Your task to perform on an android device: turn off sleep mode Image 0: 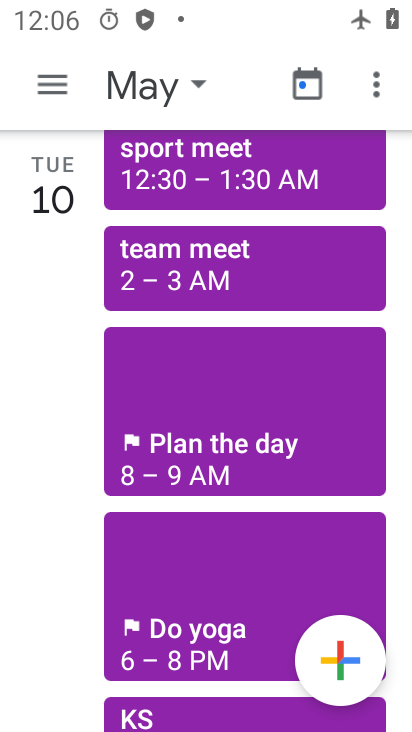
Step 0: press home button
Your task to perform on an android device: turn off sleep mode Image 1: 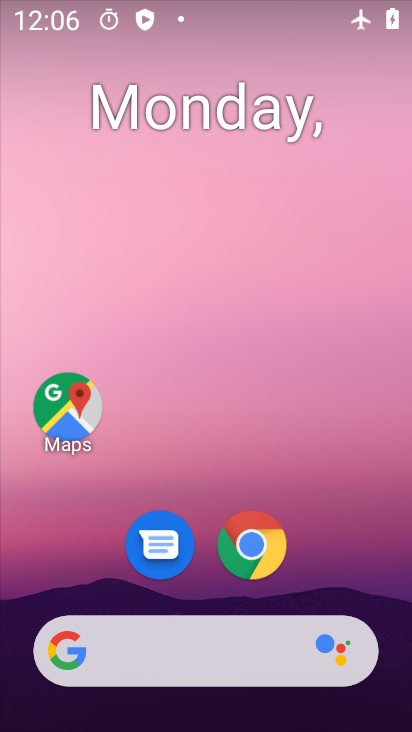
Step 1: drag from (208, 604) to (222, 264)
Your task to perform on an android device: turn off sleep mode Image 2: 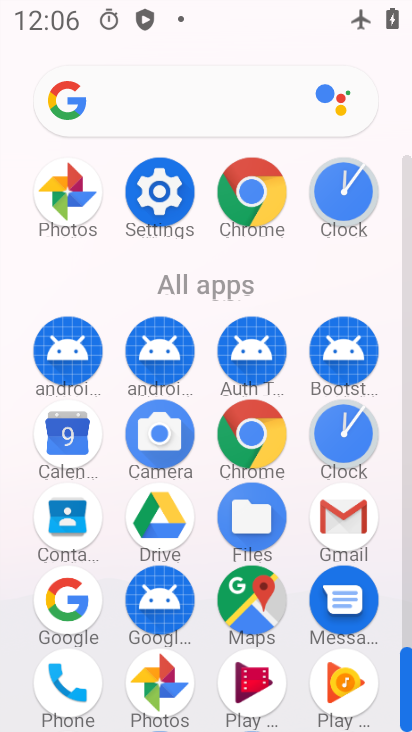
Step 2: click (157, 193)
Your task to perform on an android device: turn off sleep mode Image 3: 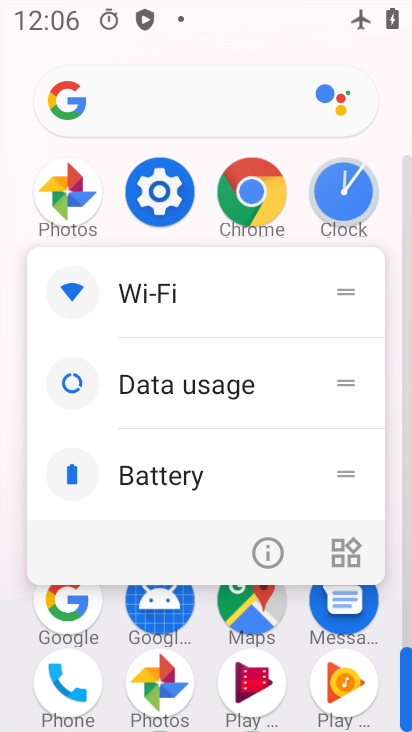
Step 3: click (275, 536)
Your task to perform on an android device: turn off sleep mode Image 4: 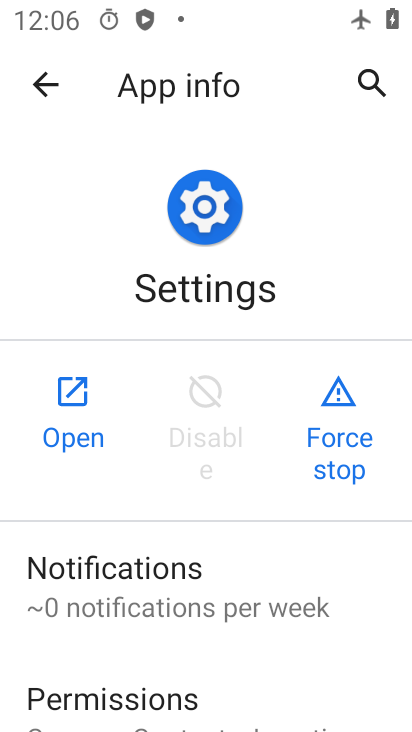
Step 4: click (74, 414)
Your task to perform on an android device: turn off sleep mode Image 5: 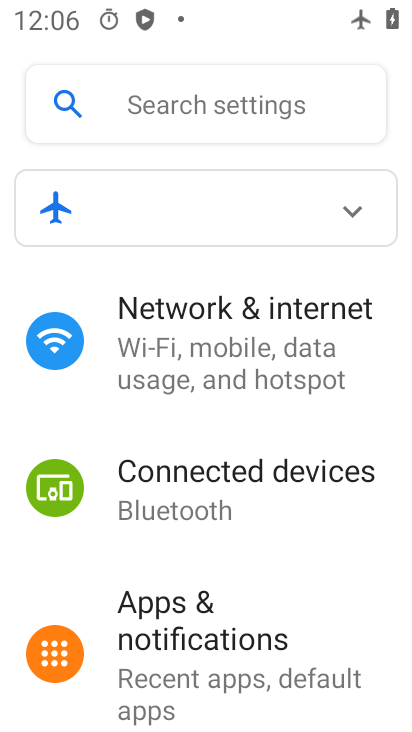
Step 5: drag from (202, 628) to (307, 166)
Your task to perform on an android device: turn off sleep mode Image 6: 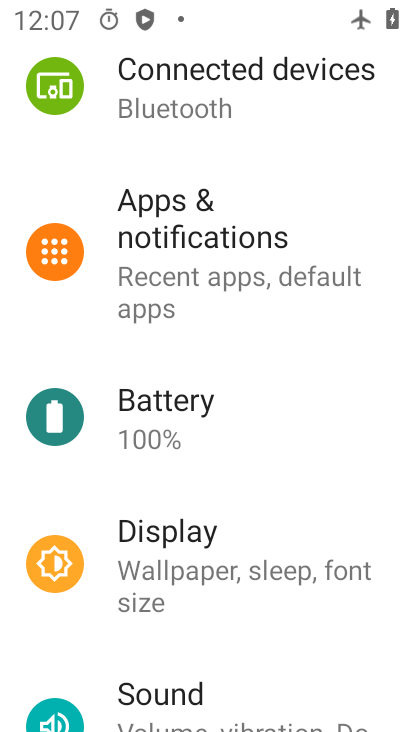
Step 6: drag from (226, 677) to (310, 249)
Your task to perform on an android device: turn off sleep mode Image 7: 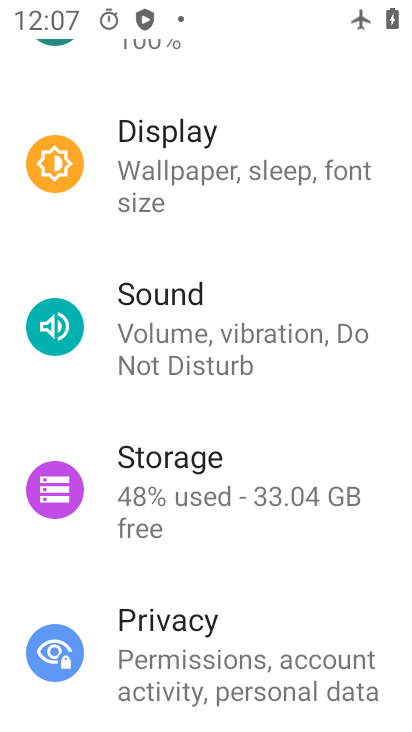
Step 7: click (183, 140)
Your task to perform on an android device: turn off sleep mode Image 8: 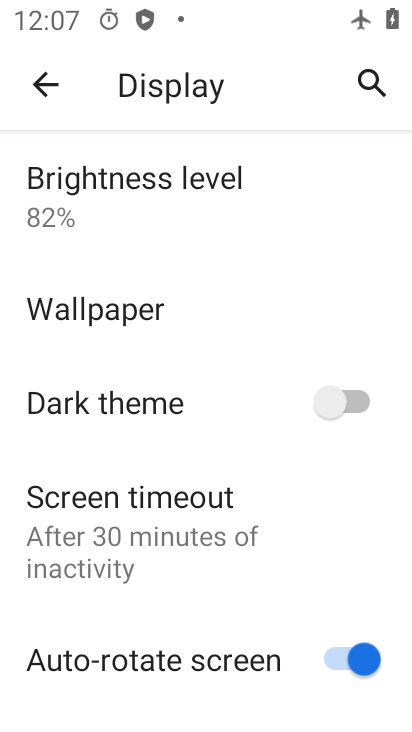
Step 8: click (165, 529)
Your task to perform on an android device: turn off sleep mode Image 9: 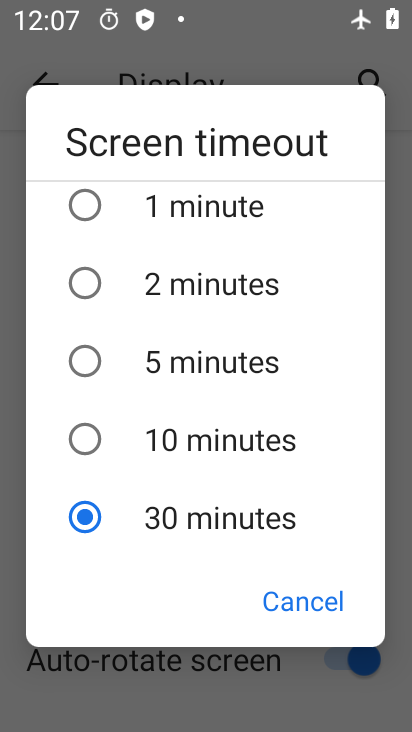
Step 9: task complete